Your task to perform on an android device: snooze an email in the gmail app Image 0: 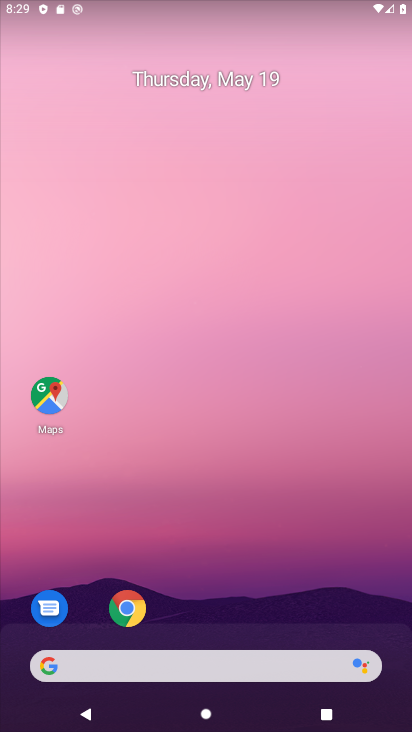
Step 0: drag from (220, 585) to (211, 44)
Your task to perform on an android device: snooze an email in the gmail app Image 1: 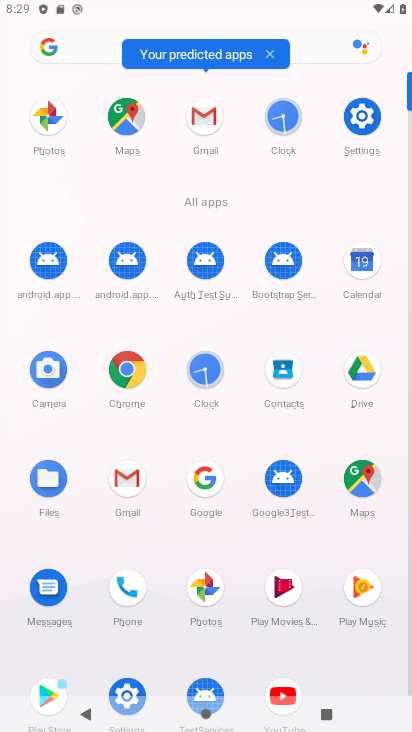
Step 1: click (199, 130)
Your task to perform on an android device: snooze an email in the gmail app Image 2: 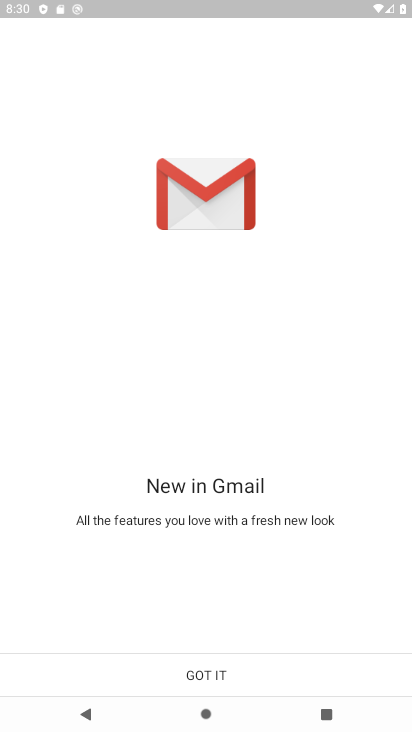
Step 2: click (201, 675)
Your task to perform on an android device: snooze an email in the gmail app Image 3: 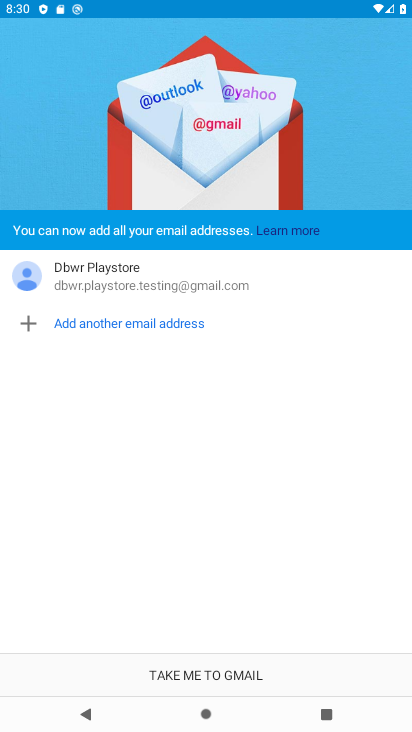
Step 3: click (195, 674)
Your task to perform on an android device: snooze an email in the gmail app Image 4: 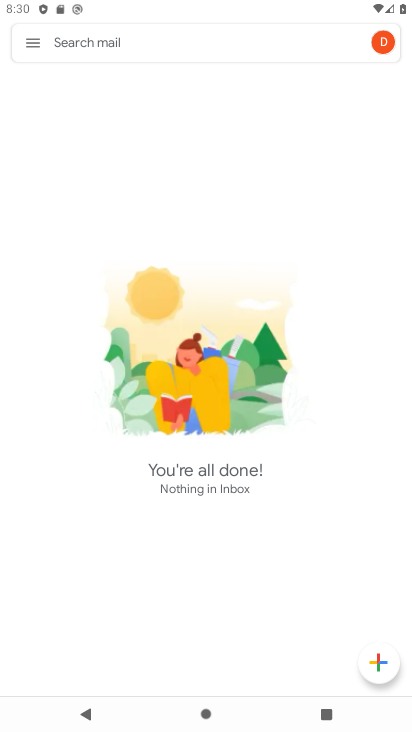
Step 4: click (38, 44)
Your task to perform on an android device: snooze an email in the gmail app Image 5: 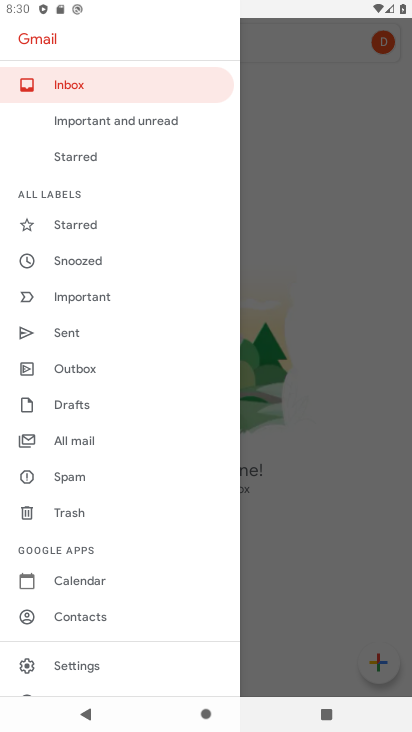
Step 5: click (62, 443)
Your task to perform on an android device: snooze an email in the gmail app Image 6: 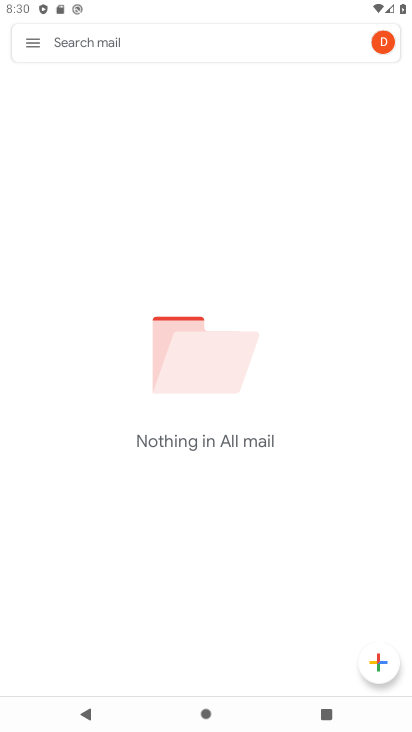
Step 6: task complete